Your task to perform on an android device: Open the Play Movies app and select the watchlist tab. Image 0: 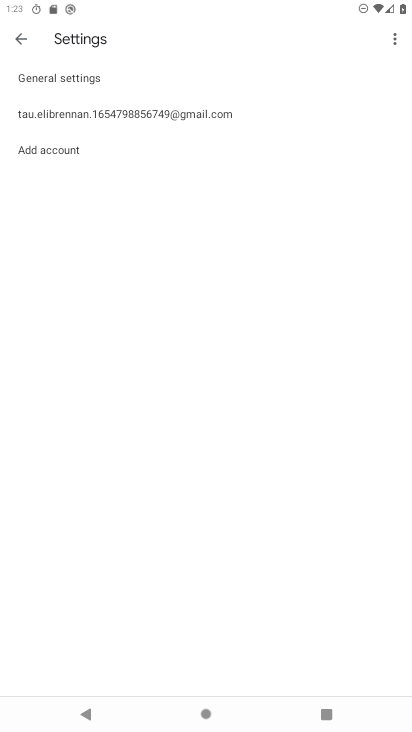
Step 0: press home button
Your task to perform on an android device: Open the Play Movies app and select the watchlist tab. Image 1: 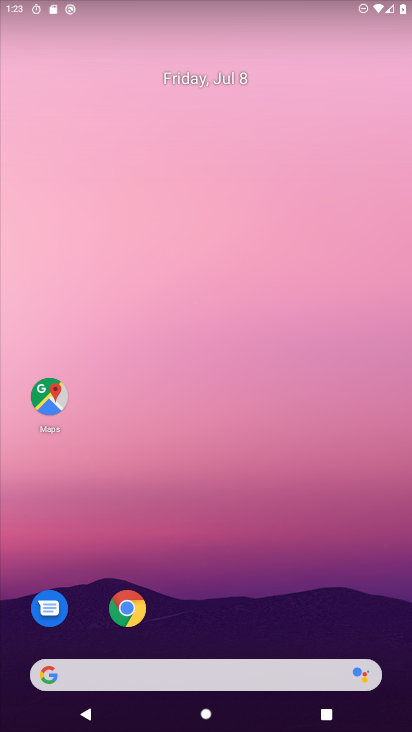
Step 1: drag from (233, 714) to (233, 67)
Your task to perform on an android device: Open the Play Movies app and select the watchlist tab. Image 2: 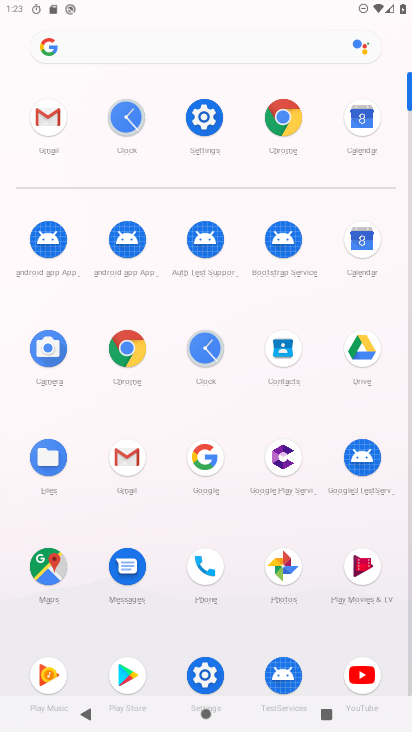
Step 2: click (361, 568)
Your task to perform on an android device: Open the Play Movies app and select the watchlist tab. Image 3: 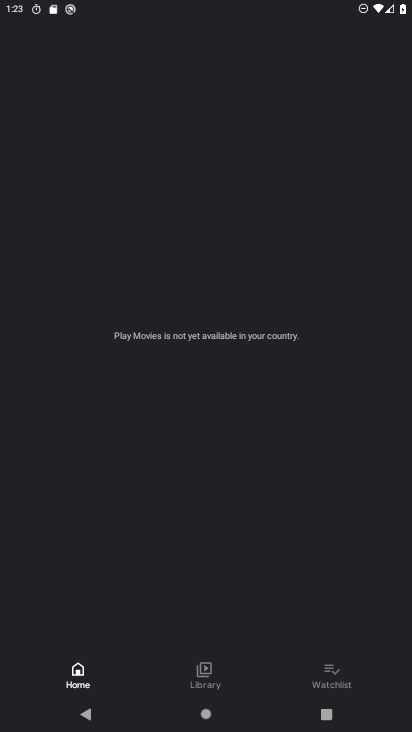
Step 3: click (327, 678)
Your task to perform on an android device: Open the Play Movies app and select the watchlist tab. Image 4: 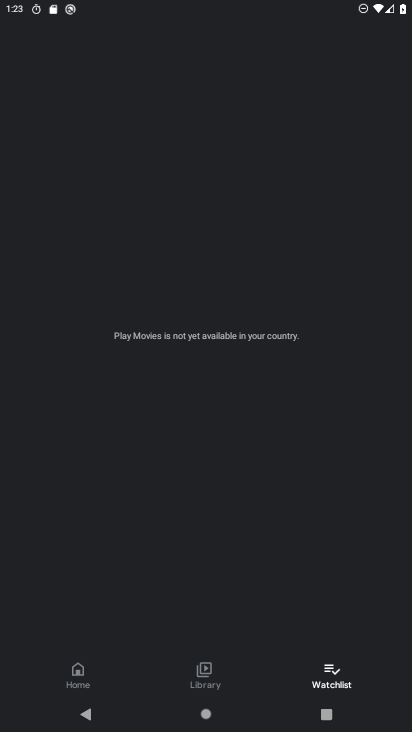
Step 4: task complete